Your task to perform on an android device: What's on my calendar today? Image 0: 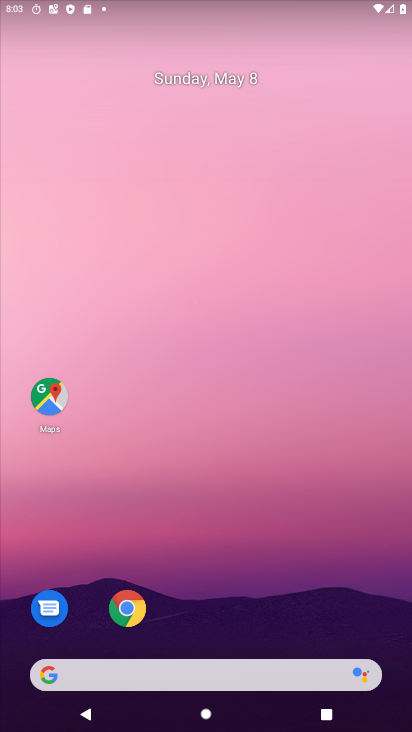
Step 0: drag from (254, 572) to (234, 100)
Your task to perform on an android device: What's on my calendar today? Image 1: 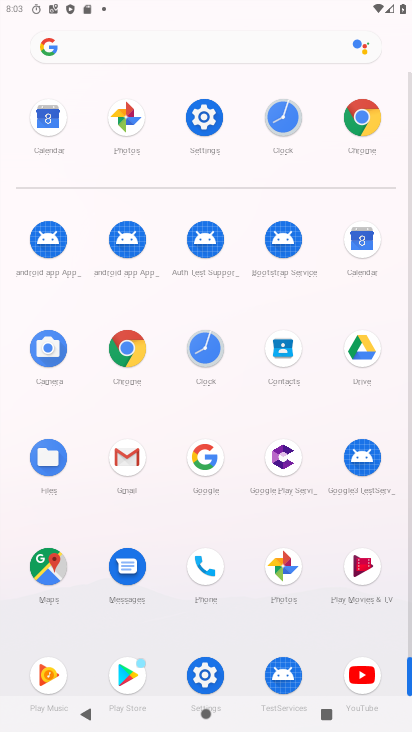
Step 1: click (365, 240)
Your task to perform on an android device: What's on my calendar today? Image 2: 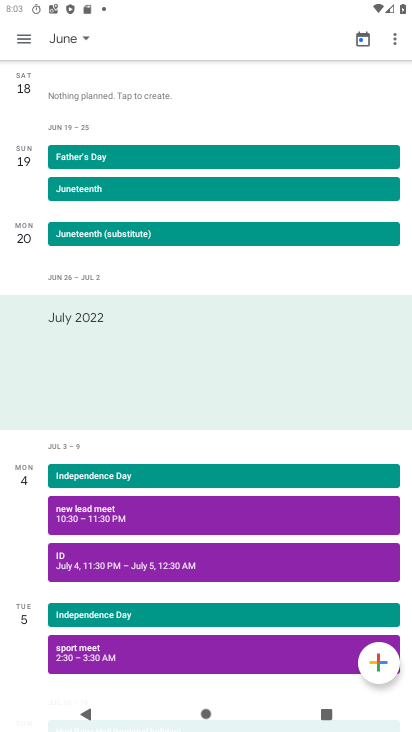
Step 2: click (65, 39)
Your task to perform on an android device: What's on my calendar today? Image 3: 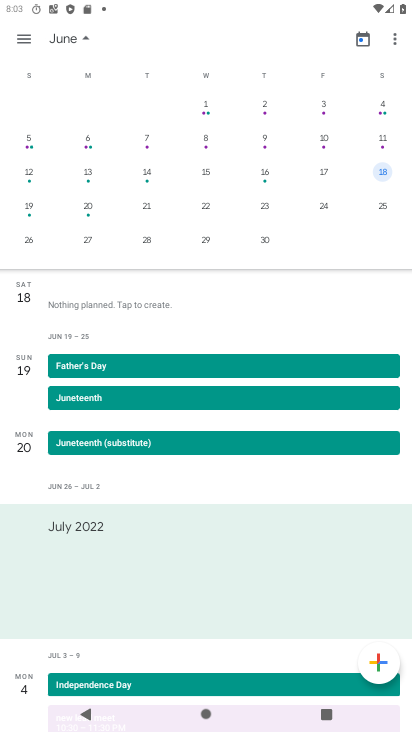
Step 3: drag from (29, 182) to (366, 161)
Your task to perform on an android device: What's on my calendar today? Image 4: 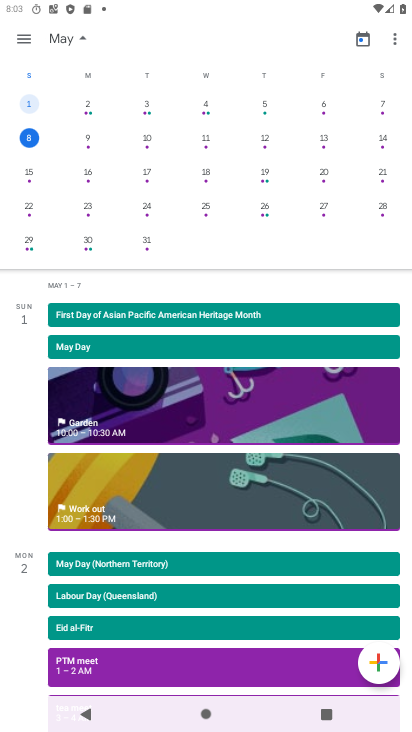
Step 4: click (35, 137)
Your task to perform on an android device: What's on my calendar today? Image 5: 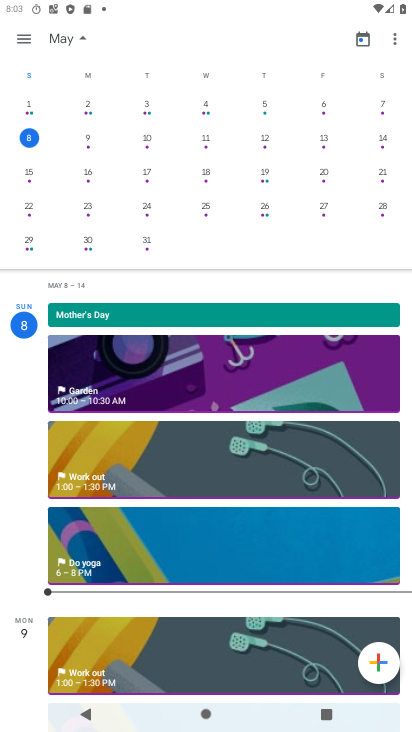
Step 5: task complete